Your task to perform on an android device: Go to Google maps Image 0: 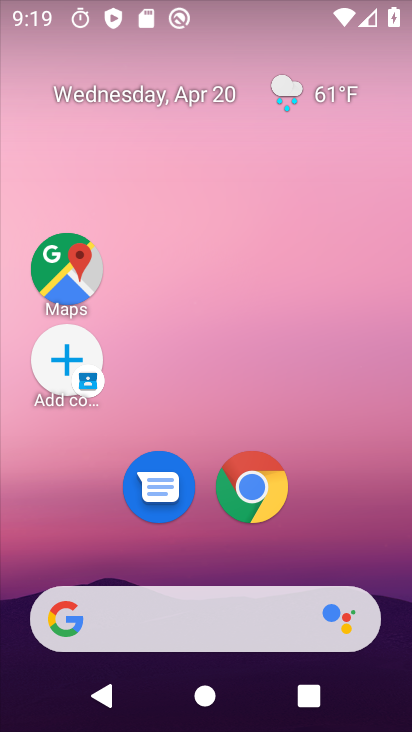
Step 0: drag from (320, 519) to (288, 76)
Your task to perform on an android device: Go to Google maps Image 1: 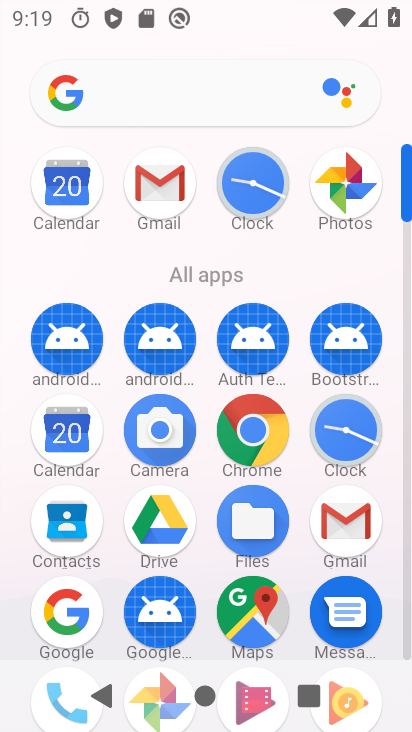
Step 1: click (259, 602)
Your task to perform on an android device: Go to Google maps Image 2: 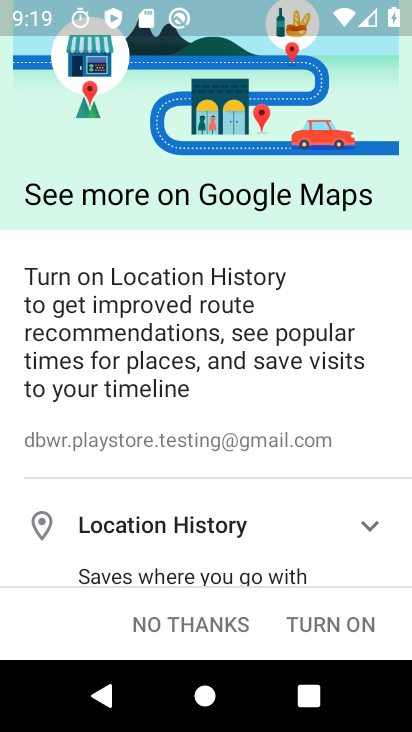
Step 2: click (169, 618)
Your task to perform on an android device: Go to Google maps Image 3: 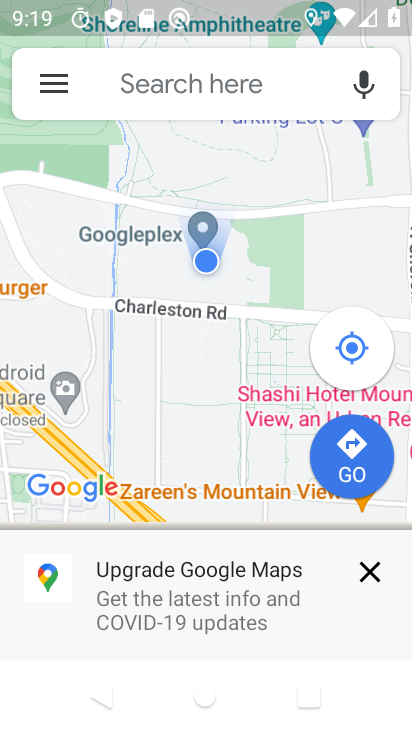
Step 3: task complete